Your task to perform on an android device: Open maps Image 0: 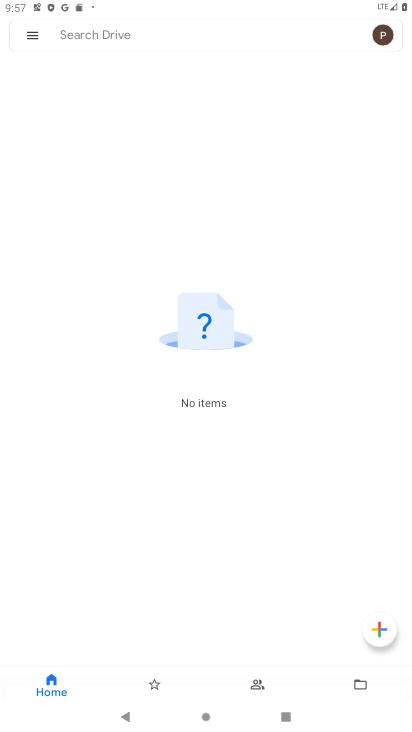
Step 0: press home button
Your task to perform on an android device: Open maps Image 1: 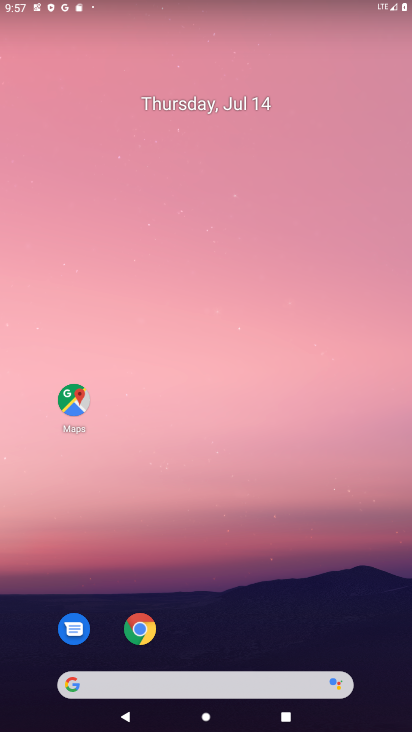
Step 1: click (86, 401)
Your task to perform on an android device: Open maps Image 2: 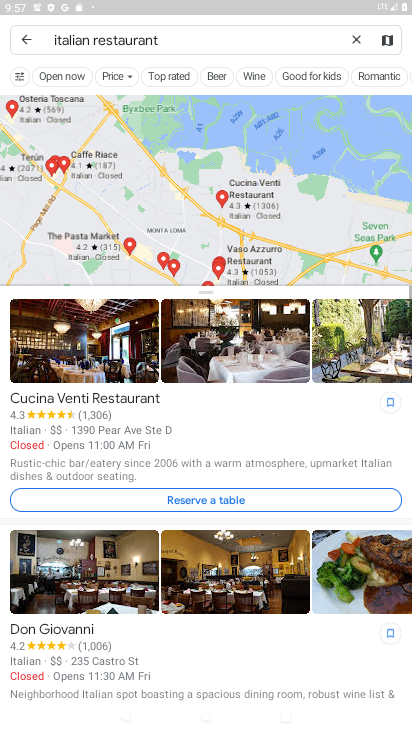
Step 2: click (361, 39)
Your task to perform on an android device: Open maps Image 3: 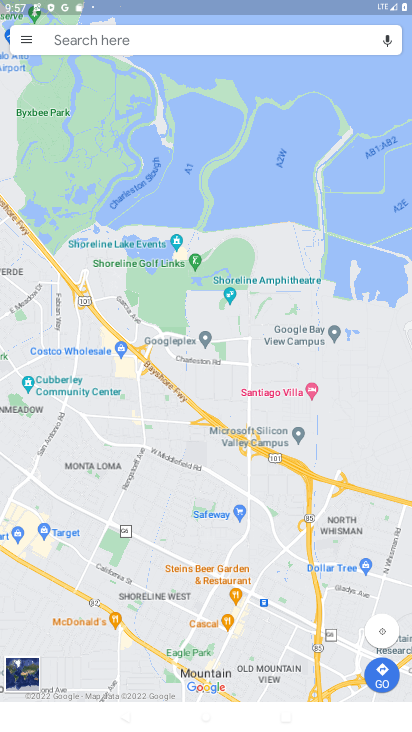
Step 3: task complete